Your task to perform on an android device: Open the stopwatch Image 0: 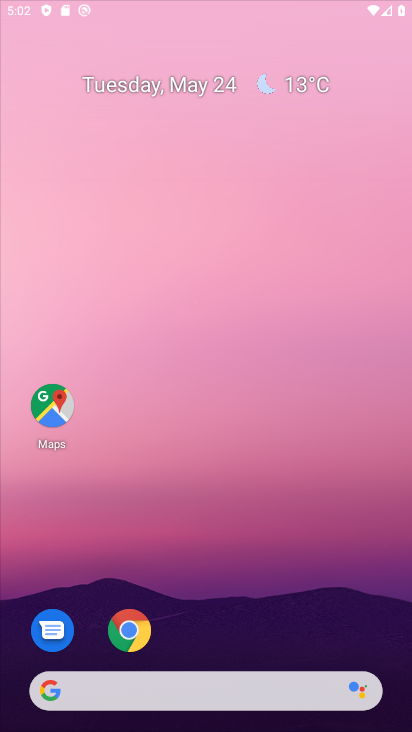
Step 0: click (131, 639)
Your task to perform on an android device: Open the stopwatch Image 1: 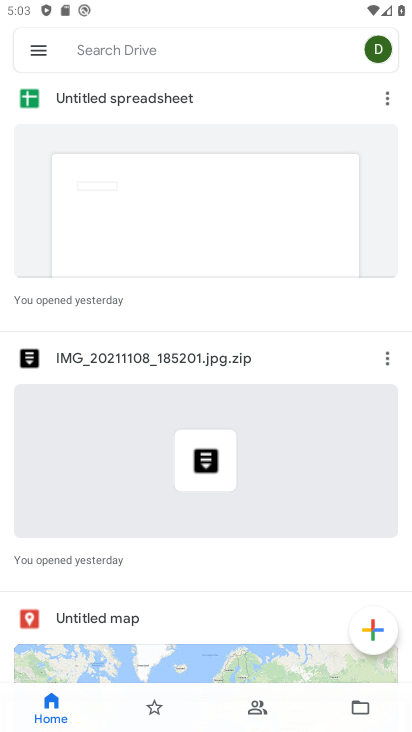
Step 1: press home button
Your task to perform on an android device: Open the stopwatch Image 2: 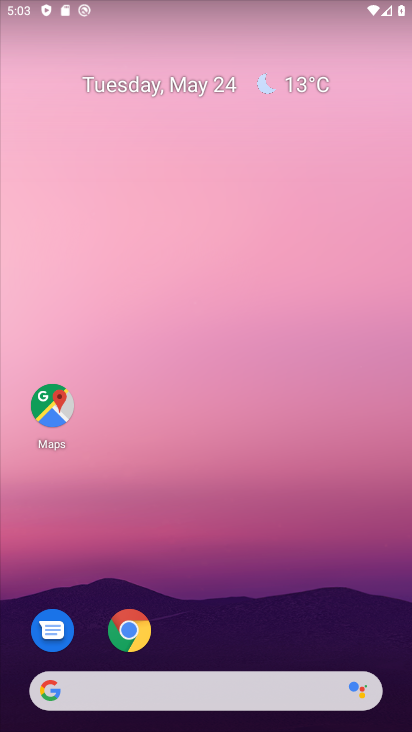
Step 2: click (128, 642)
Your task to perform on an android device: Open the stopwatch Image 3: 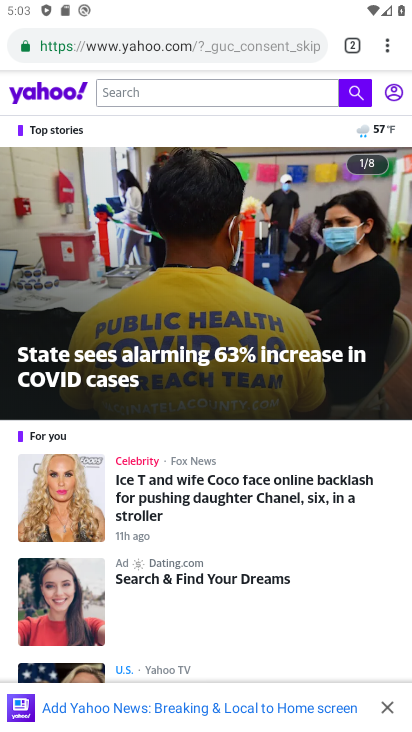
Step 3: task complete